Your task to perform on an android device: toggle notification dots Image 0: 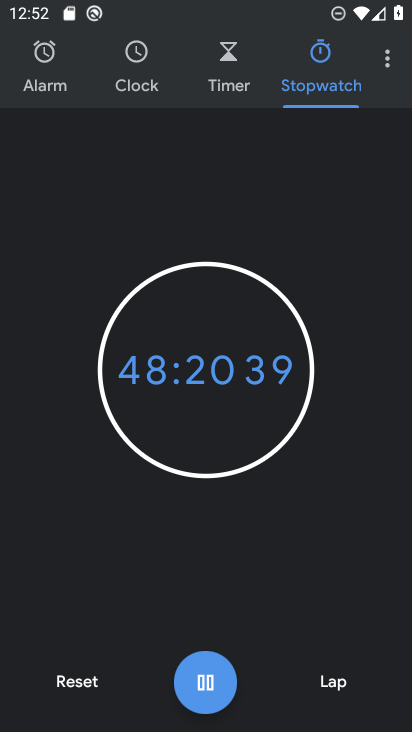
Step 0: press home button
Your task to perform on an android device: toggle notification dots Image 1: 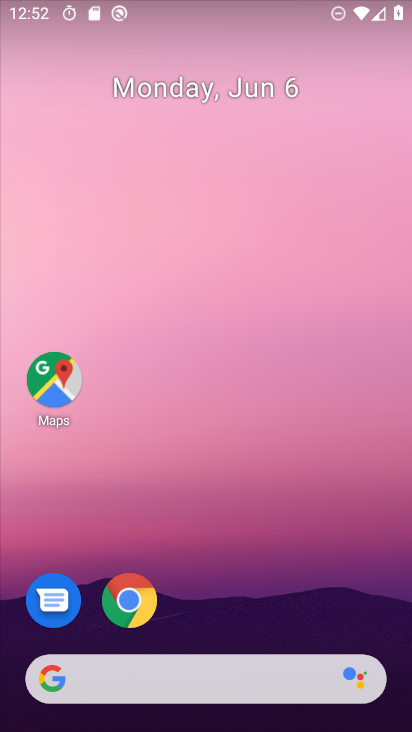
Step 1: drag from (205, 631) to (212, 326)
Your task to perform on an android device: toggle notification dots Image 2: 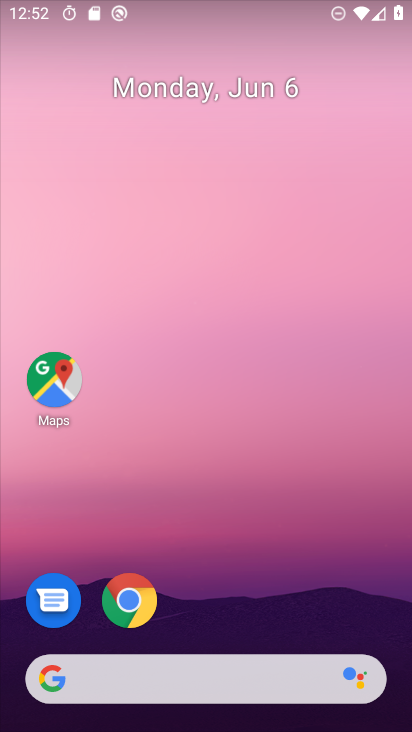
Step 2: drag from (202, 615) to (207, 238)
Your task to perform on an android device: toggle notification dots Image 3: 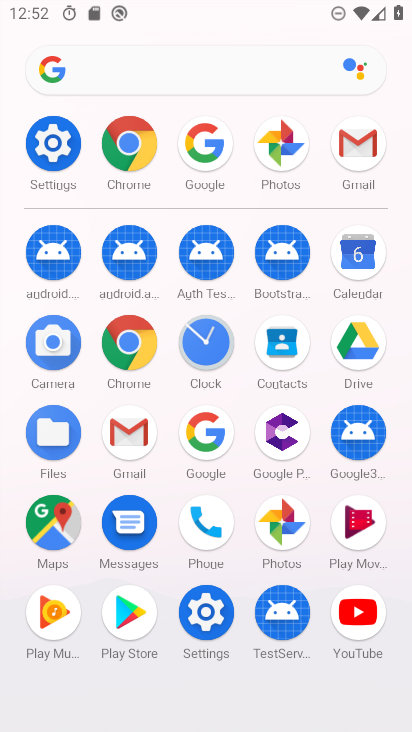
Step 3: click (57, 139)
Your task to perform on an android device: toggle notification dots Image 4: 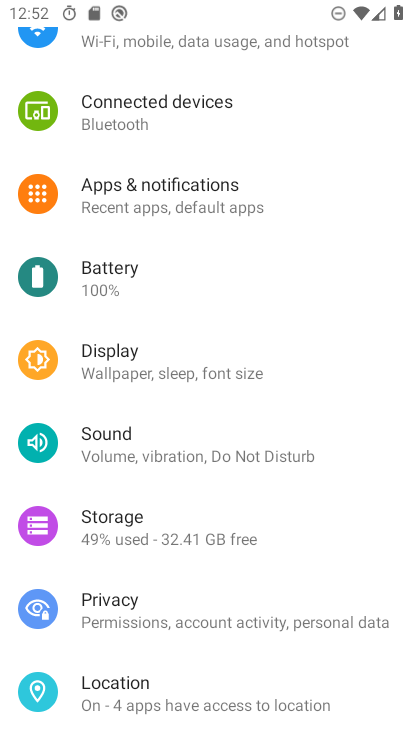
Step 4: click (187, 218)
Your task to perform on an android device: toggle notification dots Image 5: 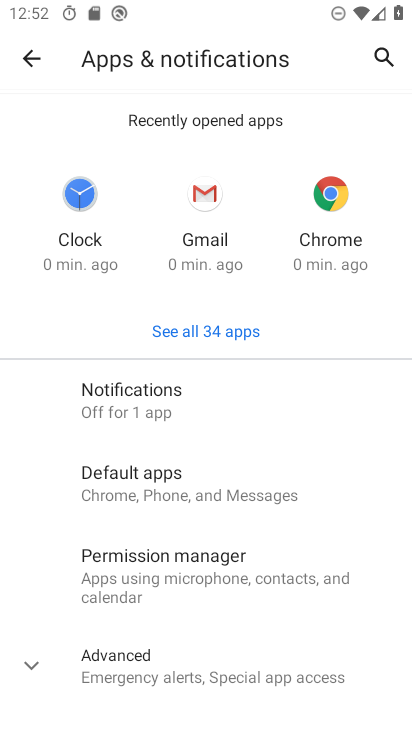
Step 5: click (208, 397)
Your task to perform on an android device: toggle notification dots Image 6: 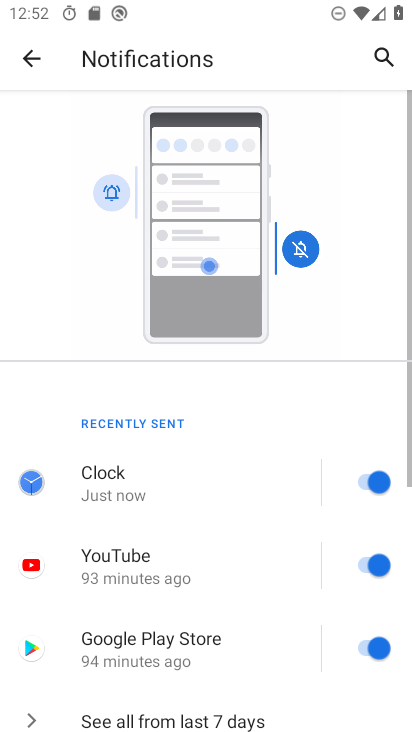
Step 6: drag from (223, 599) to (249, 267)
Your task to perform on an android device: toggle notification dots Image 7: 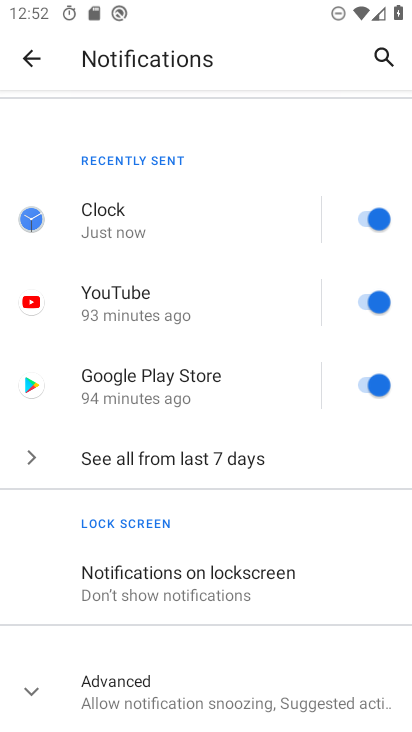
Step 7: drag from (227, 629) to (261, 278)
Your task to perform on an android device: toggle notification dots Image 8: 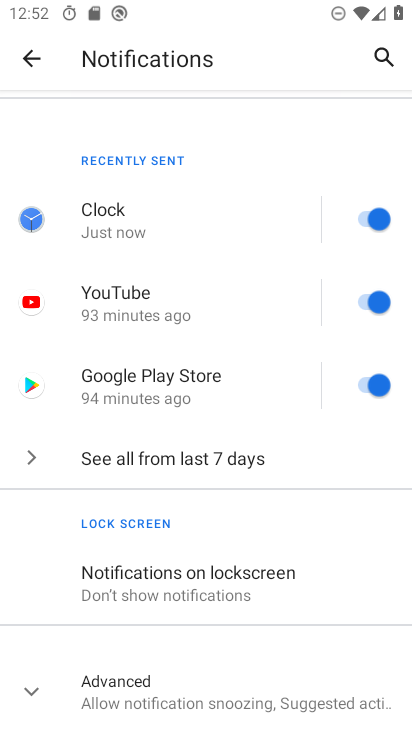
Step 8: click (163, 676)
Your task to perform on an android device: toggle notification dots Image 9: 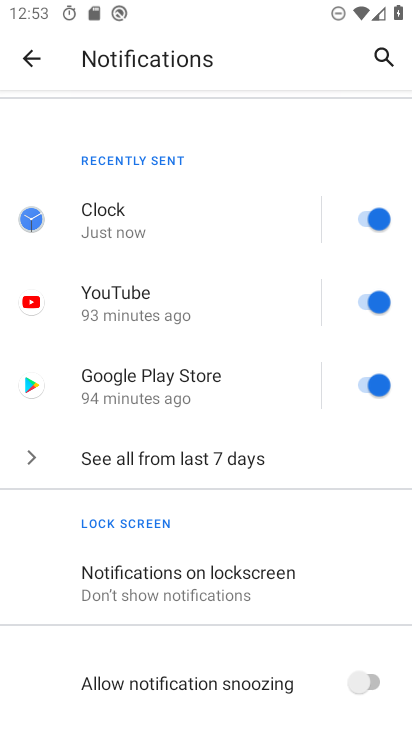
Step 9: drag from (173, 669) to (184, 220)
Your task to perform on an android device: toggle notification dots Image 10: 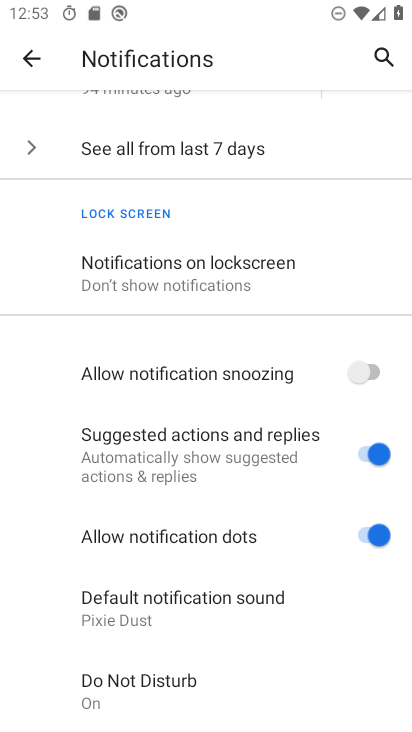
Step 10: drag from (225, 677) to (246, 465)
Your task to perform on an android device: toggle notification dots Image 11: 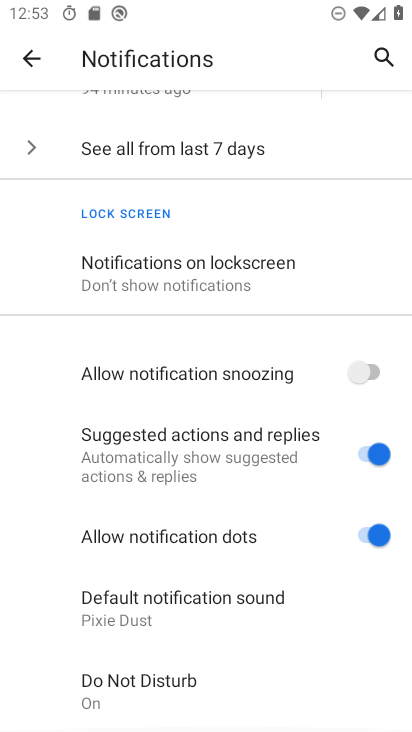
Step 11: click (361, 534)
Your task to perform on an android device: toggle notification dots Image 12: 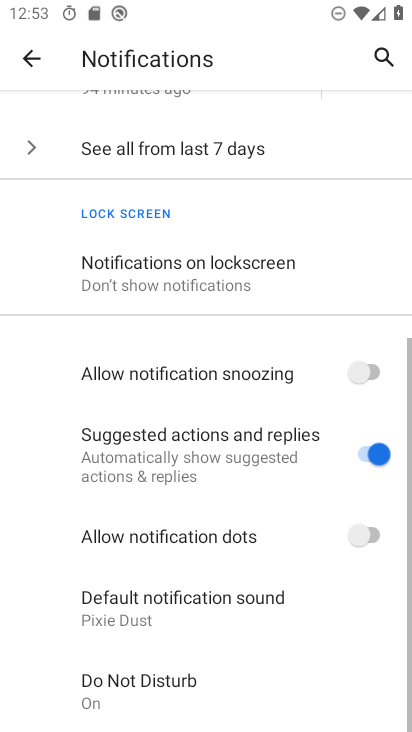
Step 12: task complete